Your task to perform on an android device: snooze an email in the gmail app Image 0: 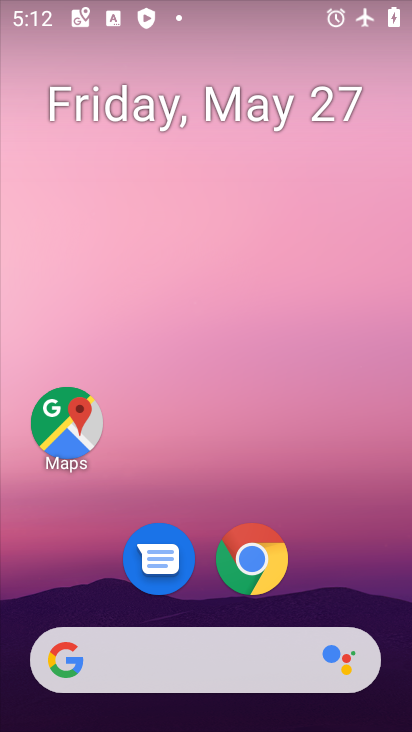
Step 0: drag from (194, 639) to (200, 98)
Your task to perform on an android device: snooze an email in the gmail app Image 1: 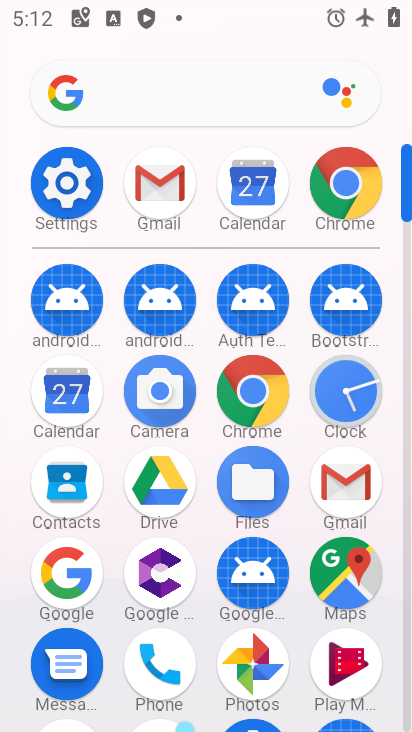
Step 1: click (348, 470)
Your task to perform on an android device: snooze an email in the gmail app Image 2: 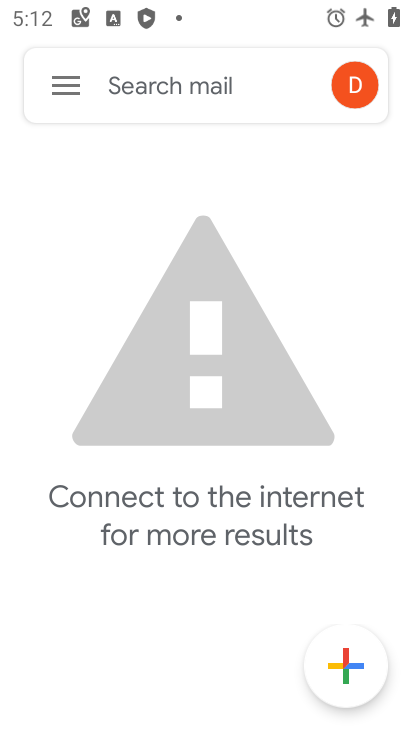
Step 2: click (65, 85)
Your task to perform on an android device: snooze an email in the gmail app Image 3: 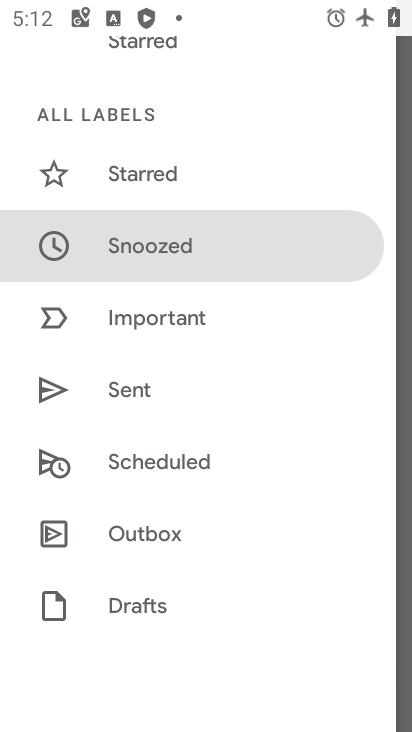
Step 3: task complete